Your task to perform on an android device: Open Maps and search for coffee Image 0: 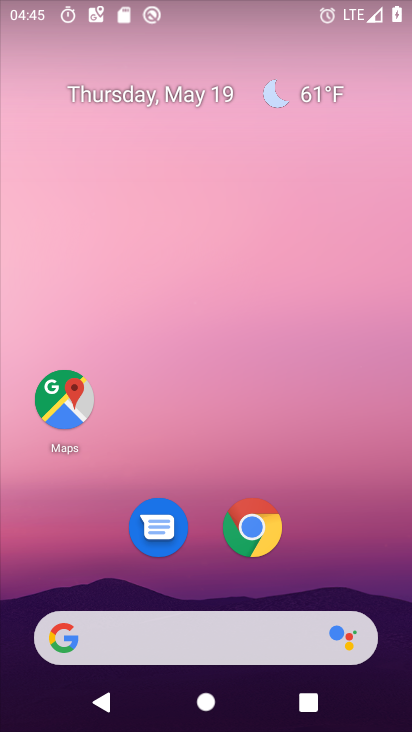
Step 0: click (75, 397)
Your task to perform on an android device: Open Maps and search for coffee Image 1: 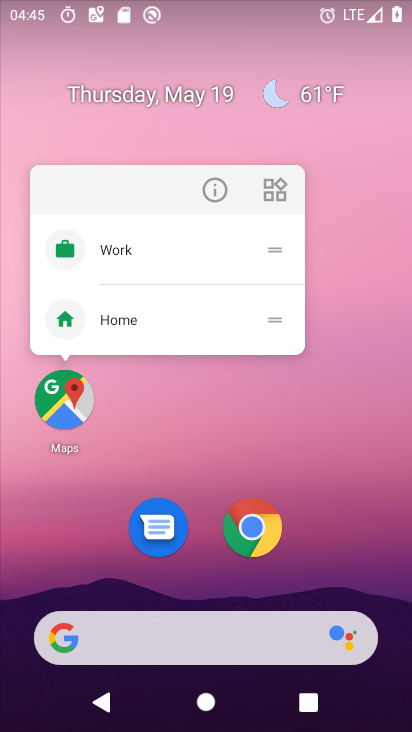
Step 1: click (58, 404)
Your task to perform on an android device: Open Maps and search for coffee Image 2: 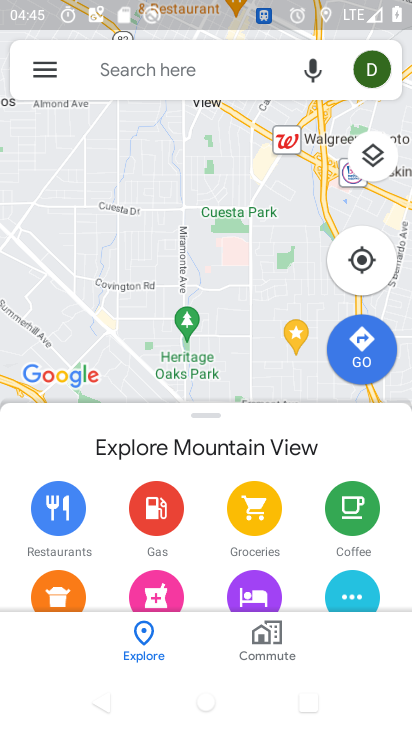
Step 2: click (154, 85)
Your task to perform on an android device: Open Maps and search for coffee Image 3: 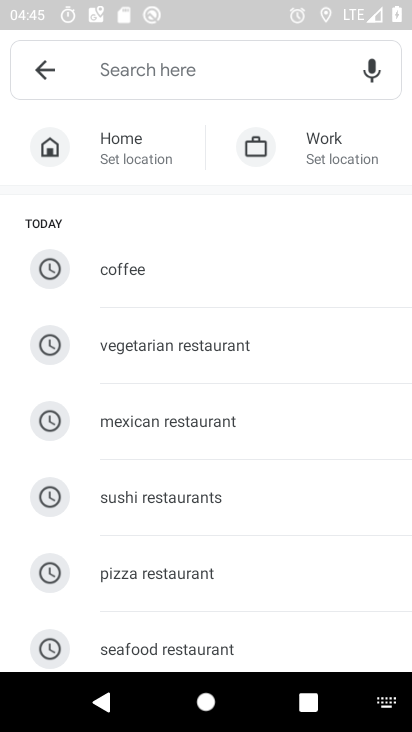
Step 3: type "coffee"
Your task to perform on an android device: Open Maps and search for coffee Image 4: 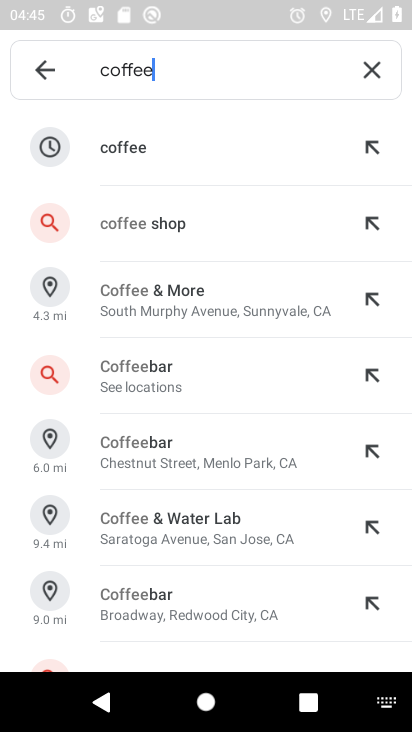
Step 4: click (141, 139)
Your task to perform on an android device: Open Maps and search for coffee Image 5: 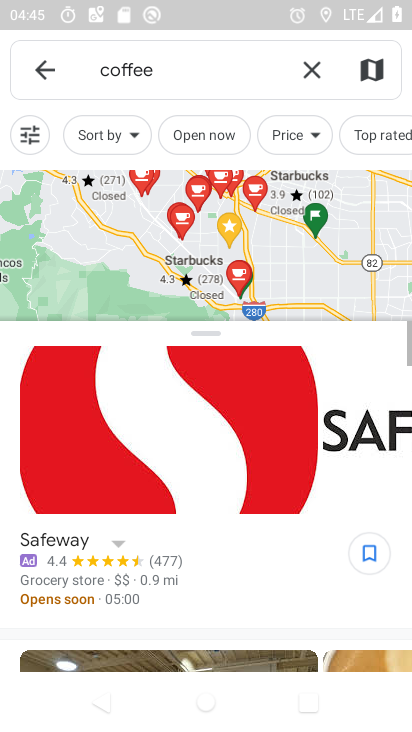
Step 5: task complete